Your task to perform on an android device: snooze an email in the gmail app Image 0: 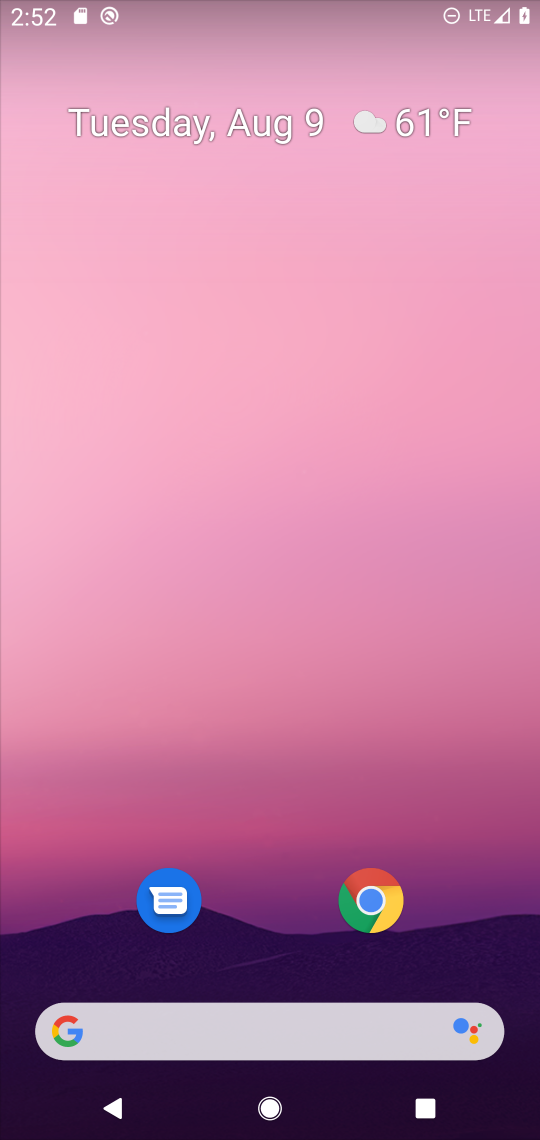
Step 0: press home button
Your task to perform on an android device: snooze an email in the gmail app Image 1: 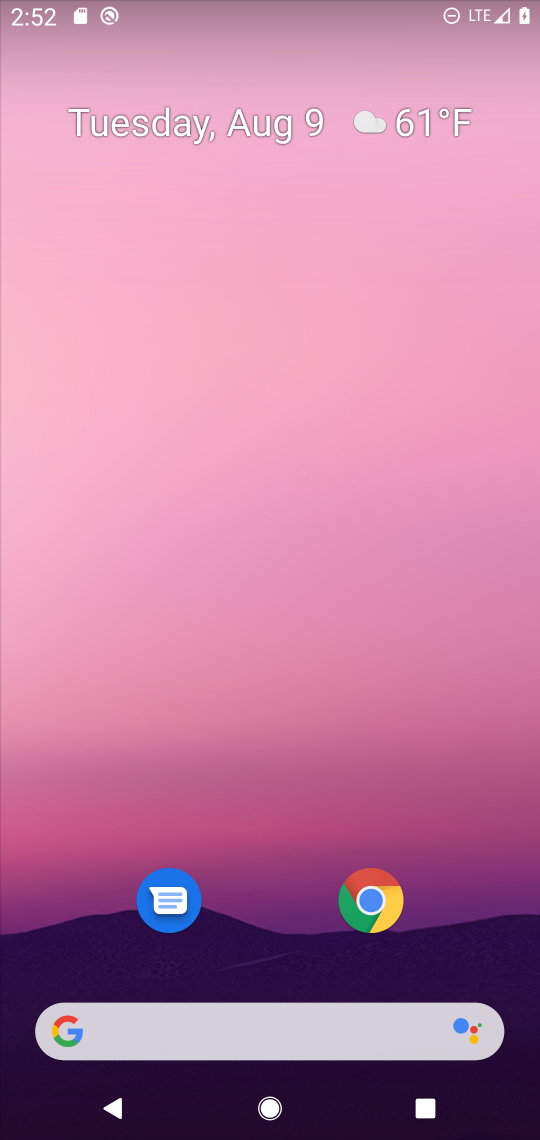
Step 1: drag from (295, 940) to (309, 311)
Your task to perform on an android device: snooze an email in the gmail app Image 2: 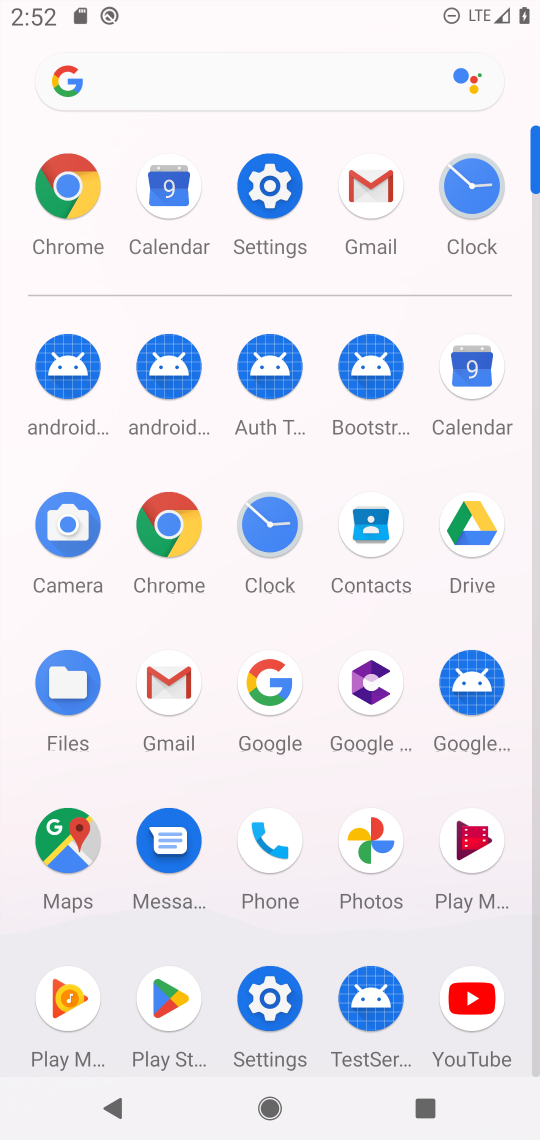
Step 2: click (166, 692)
Your task to perform on an android device: snooze an email in the gmail app Image 3: 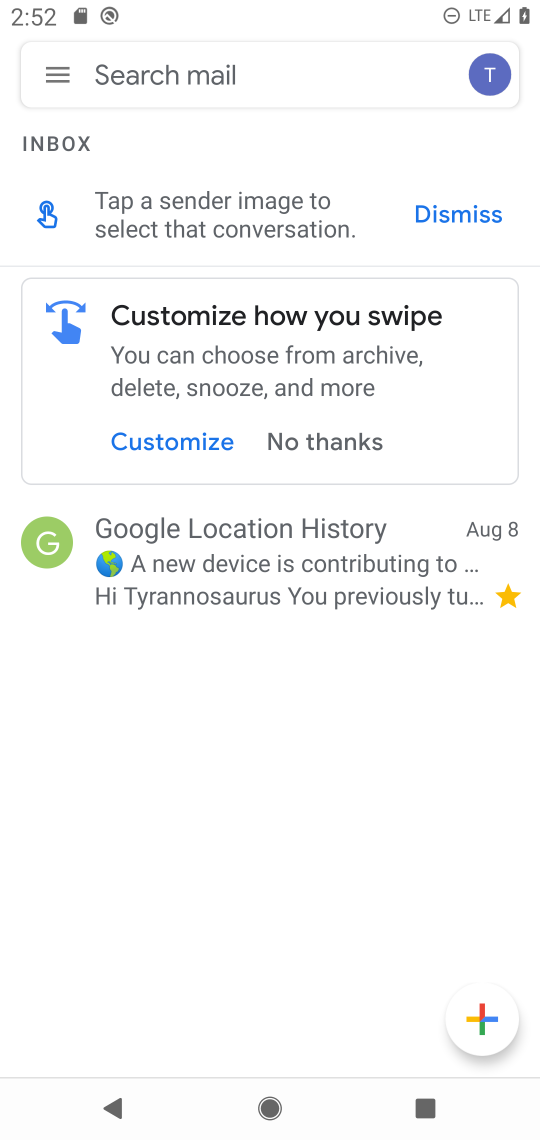
Step 3: click (59, 66)
Your task to perform on an android device: snooze an email in the gmail app Image 4: 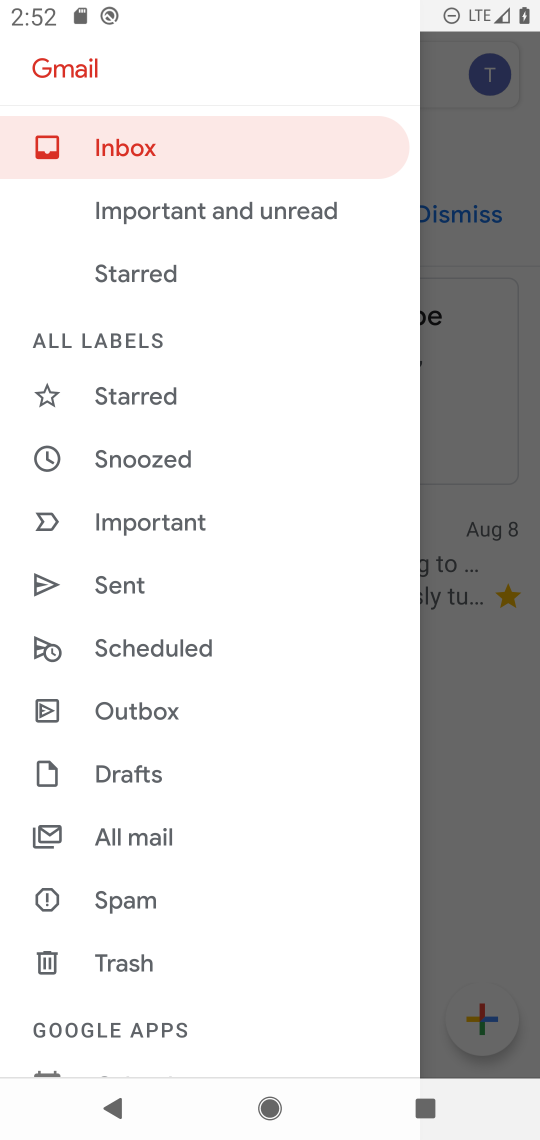
Step 4: click (188, 463)
Your task to perform on an android device: snooze an email in the gmail app Image 5: 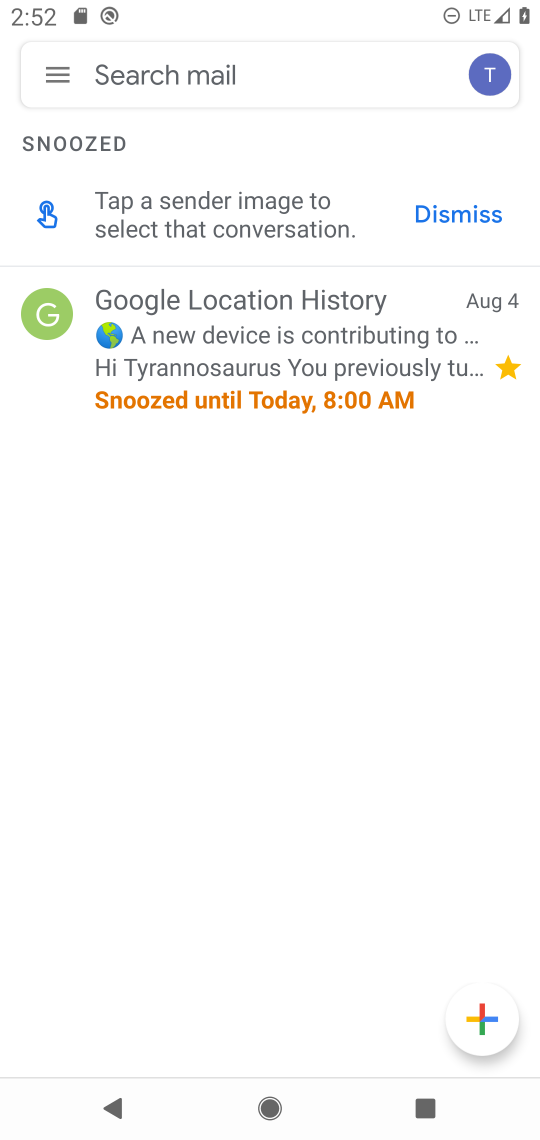
Step 5: task complete